Your task to perform on an android device: toggle notifications settings in the gmail app Image 0: 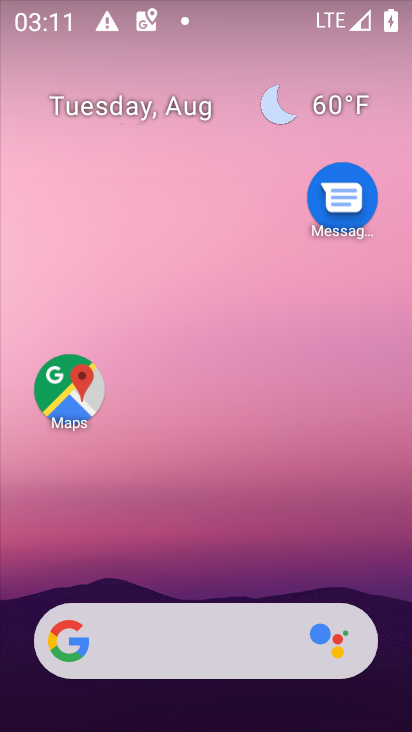
Step 0: drag from (240, 589) to (293, 1)
Your task to perform on an android device: toggle notifications settings in the gmail app Image 1: 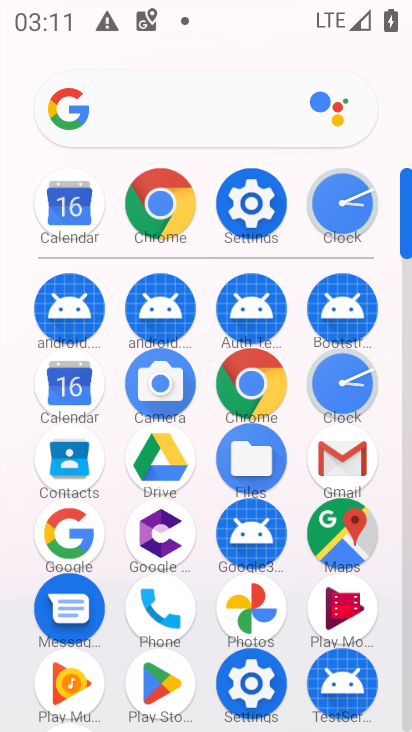
Step 1: click (336, 467)
Your task to perform on an android device: toggle notifications settings in the gmail app Image 2: 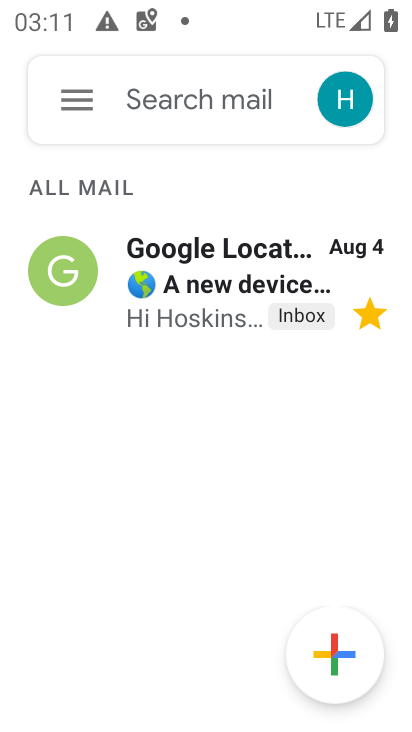
Step 2: click (73, 102)
Your task to perform on an android device: toggle notifications settings in the gmail app Image 3: 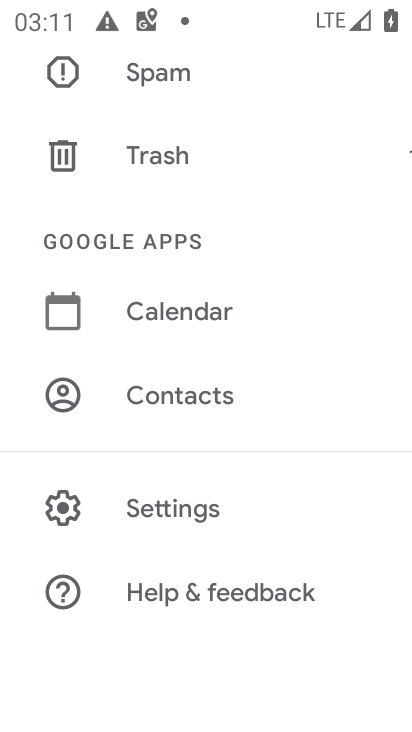
Step 3: click (125, 534)
Your task to perform on an android device: toggle notifications settings in the gmail app Image 4: 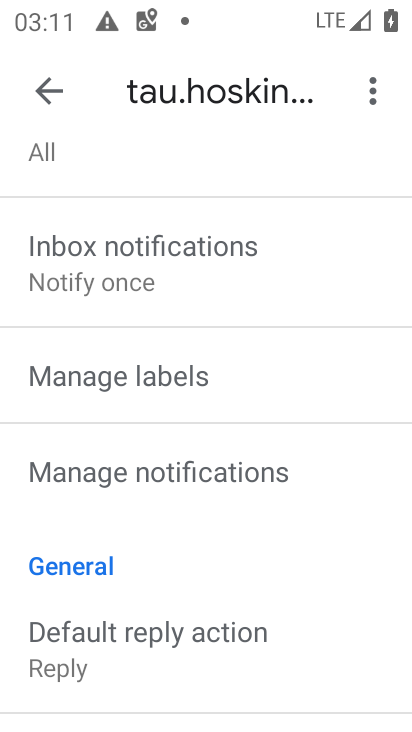
Step 4: drag from (142, 233) to (157, 711)
Your task to perform on an android device: toggle notifications settings in the gmail app Image 5: 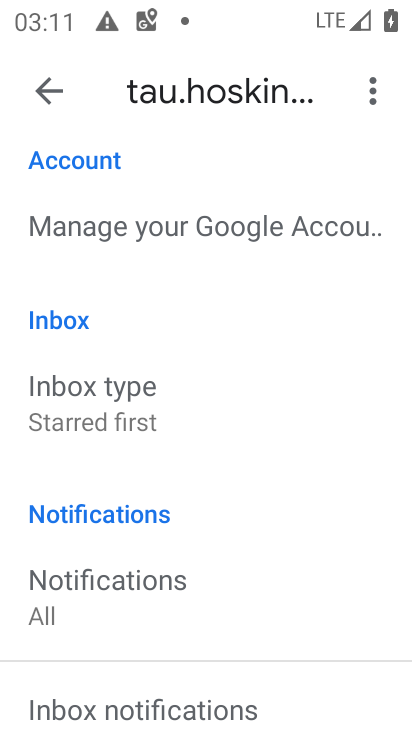
Step 5: drag from (139, 445) to (190, 160)
Your task to perform on an android device: toggle notifications settings in the gmail app Image 6: 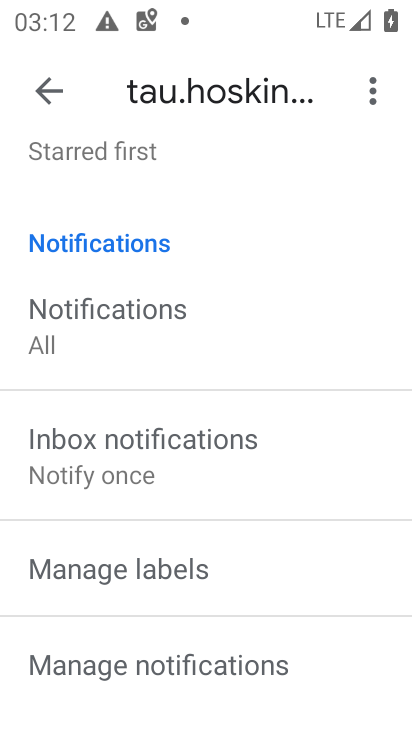
Step 6: click (192, 672)
Your task to perform on an android device: toggle notifications settings in the gmail app Image 7: 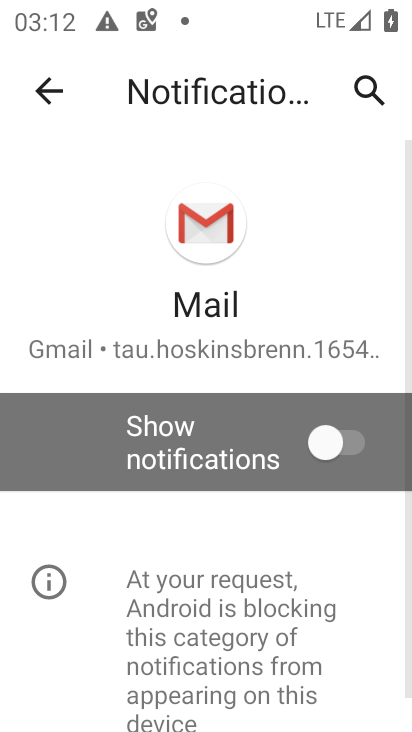
Step 7: click (300, 443)
Your task to perform on an android device: toggle notifications settings in the gmail app Image 8: 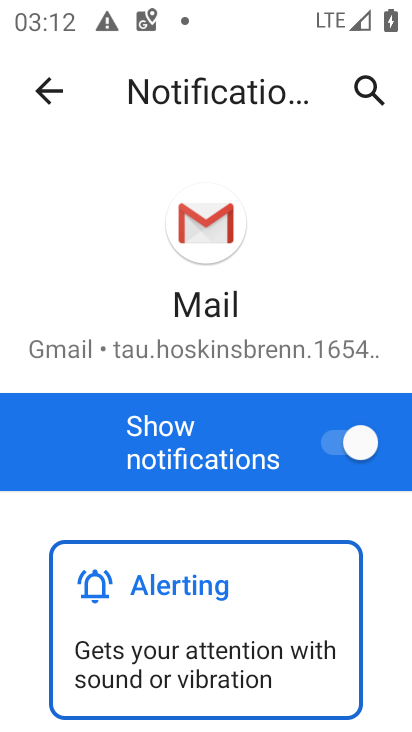
Step 8: task complete